Your task to perform on an android device: turn on the 24-hour format for clock Image 0: 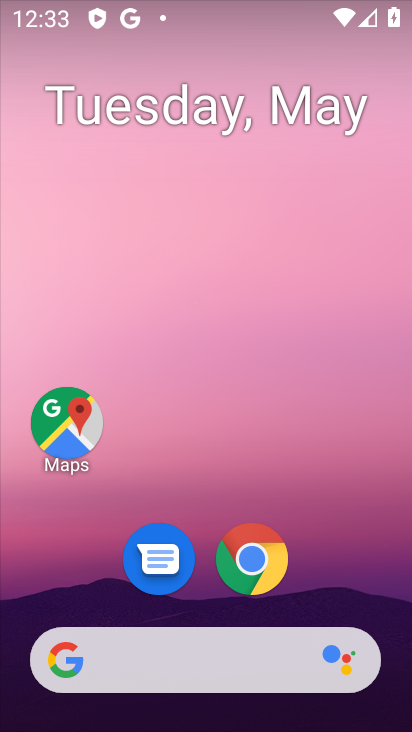
Step 0: drag from (301, 597) to (312, 474)
Your task to perform on an android device: turn on the 24-hour format for clock Image 1: 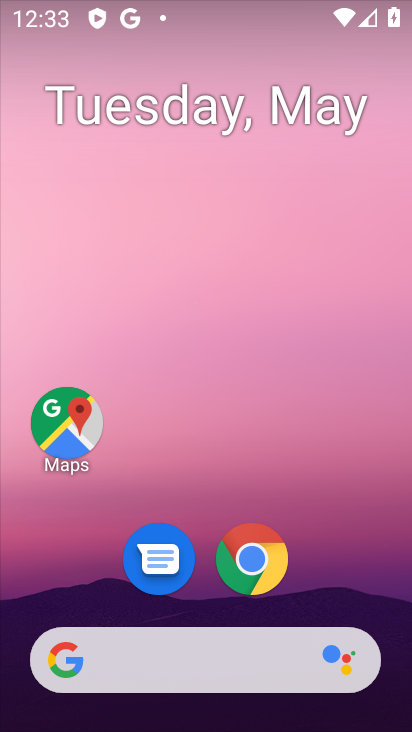
Step 1: drag from (315, 597) to (280, 303)
Your task to perform on an android device: turn on the 24-hour format for clock Image 2: 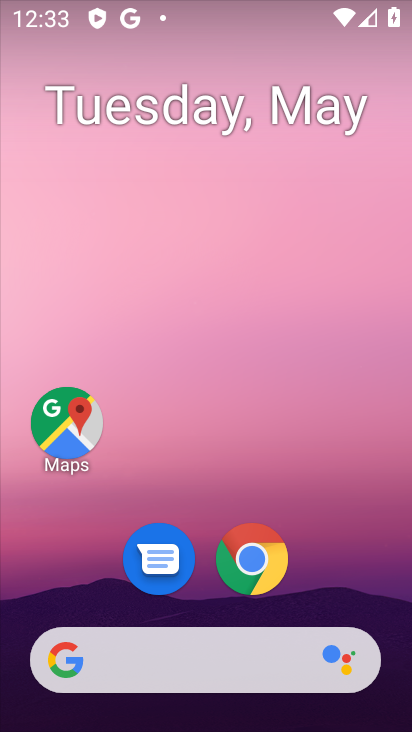
Step 2: drag from (339, 525) to (291, 209)
Your task to perform on an android device: turn on the 24-hour format for clock Image 3: 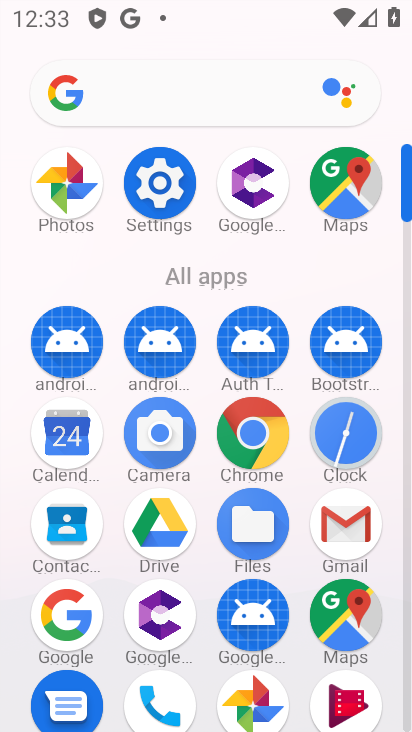
Step 3: click (337, 444)
Your task to perform on an android device: turn on the 24-hour format for clock Image 4: 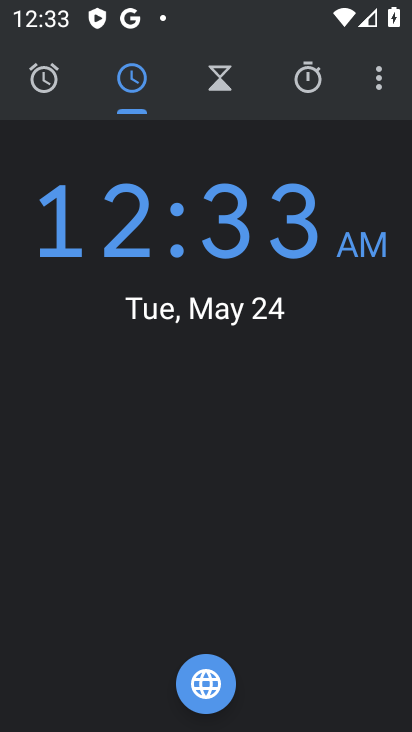
Step 4: click (379, 82)
Your task to perform on an android device: turn on the 24-hour format for clock Image 5: 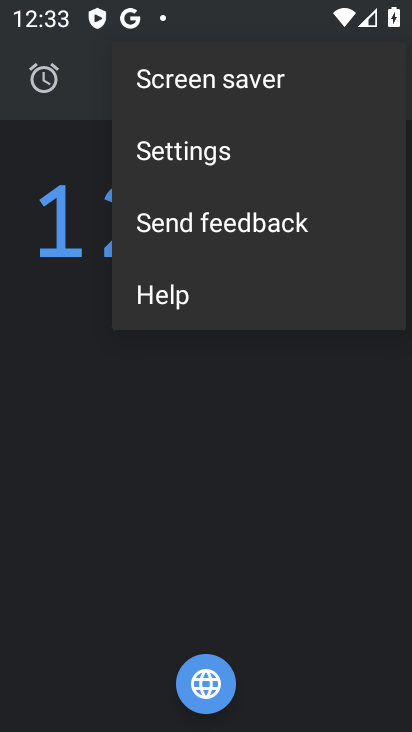
Step 5: click (286, 140)
Your task to perform on an android device: turn on the 24-hour format for clock Image 6: 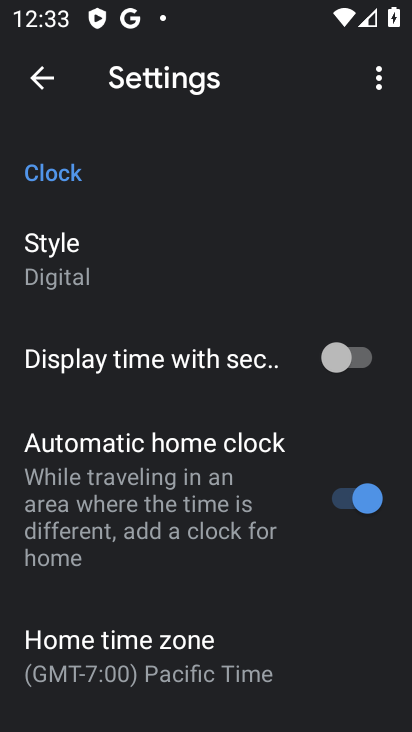
Step 6: drag from (189, 555) to (140, 247)
Your task to perform on an android device: turn on the 24-hour format for clock Image 7: 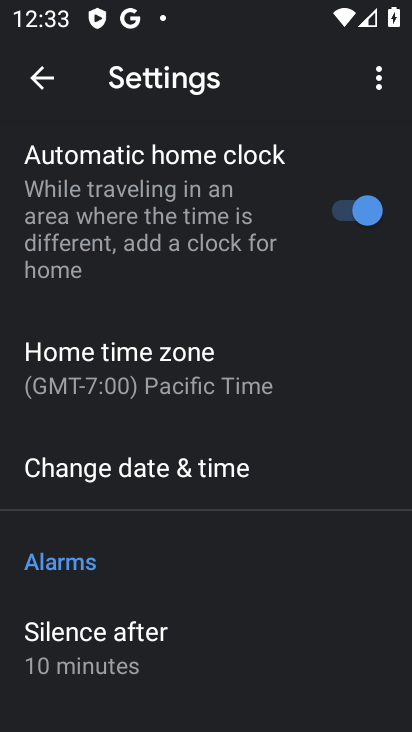
Step 7: click (138, 474)
Your task to perform on an android device: turn on the 24-hour format for clock Image 8: 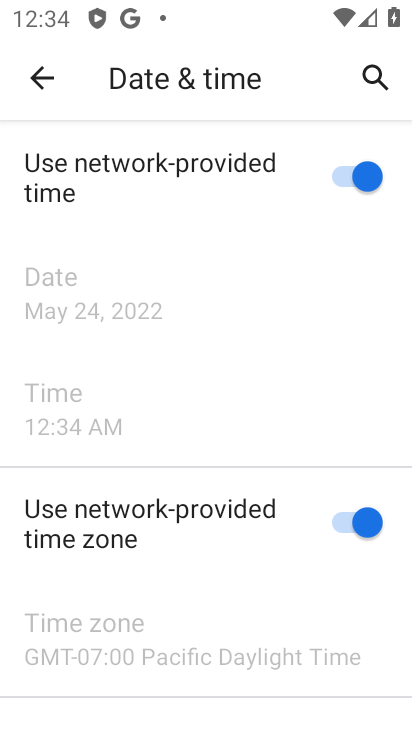
Step 8: drag from (113, 694) to (106, 363)
Your task to perform on an android device: turn on the 24-hour format for clock Image 9: 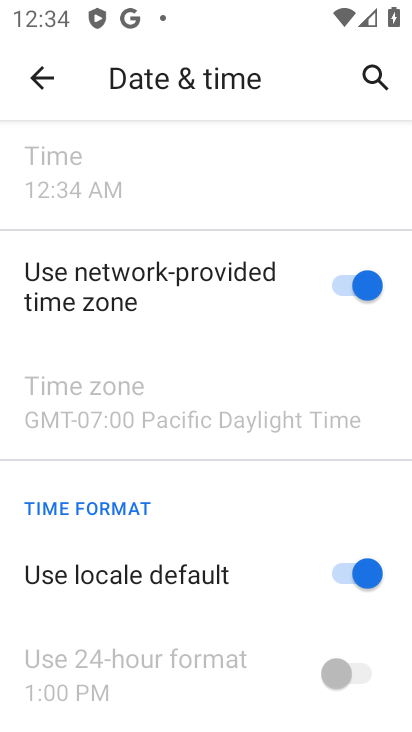
Step 9: click (348, 576)
Your task to perform on an android device: turn on the 24-hour format for clock Image 10: 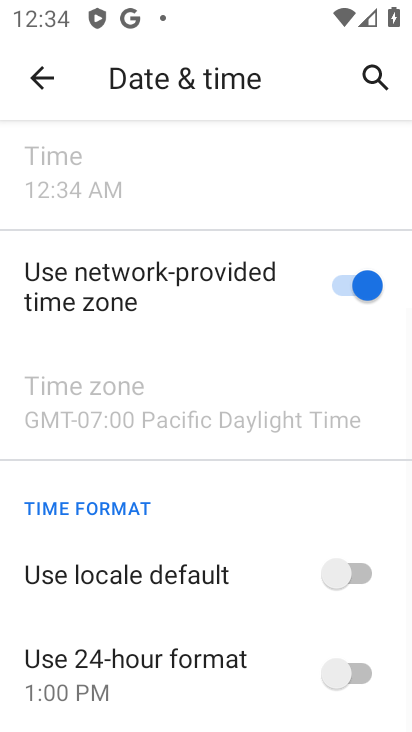
Step 10: click (331, 669)
Your task to perform on an android device: turn on the 24-hour format for clock Image 11: 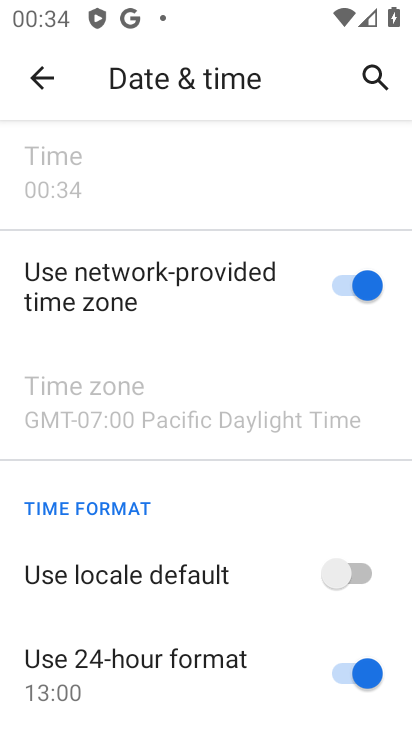
Step 11: task complete